Your task to perform on an android device: Is it going to rain today? Image 0: 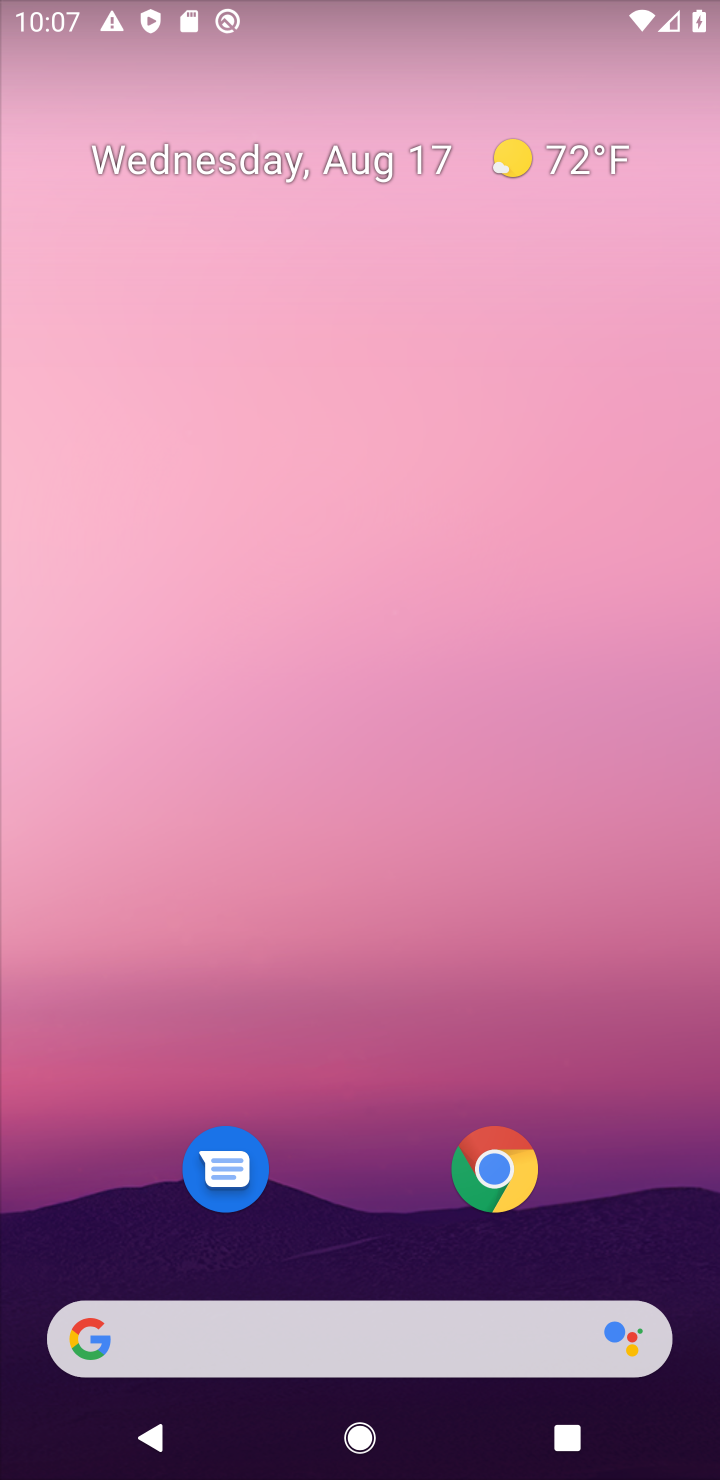
Step 0: drag from (339, 1038) to (349, 242)
Your task to perform on an android device: Is it going to rain today? Image 1: 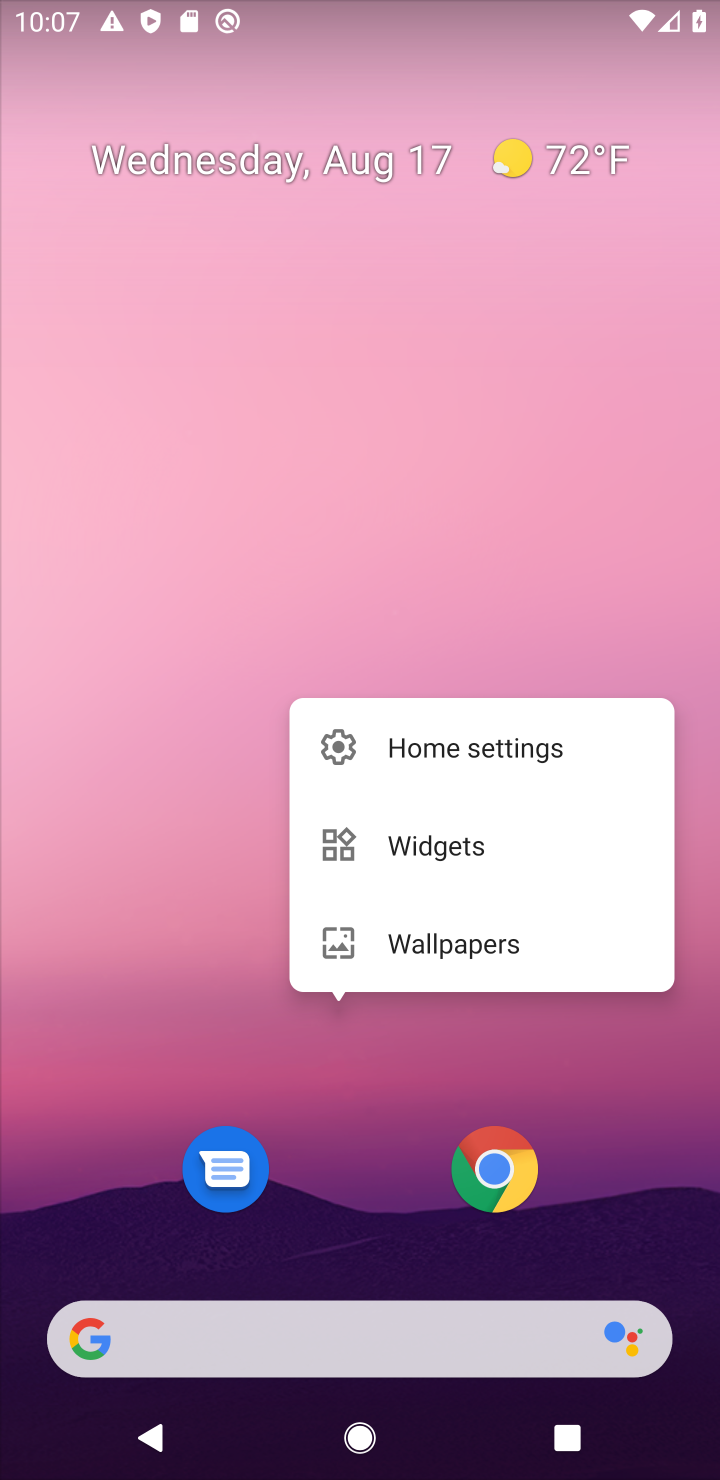
Step 1: click (387, 1029)
Your task to perform on an android device: Is it going to rain today? Image 2: 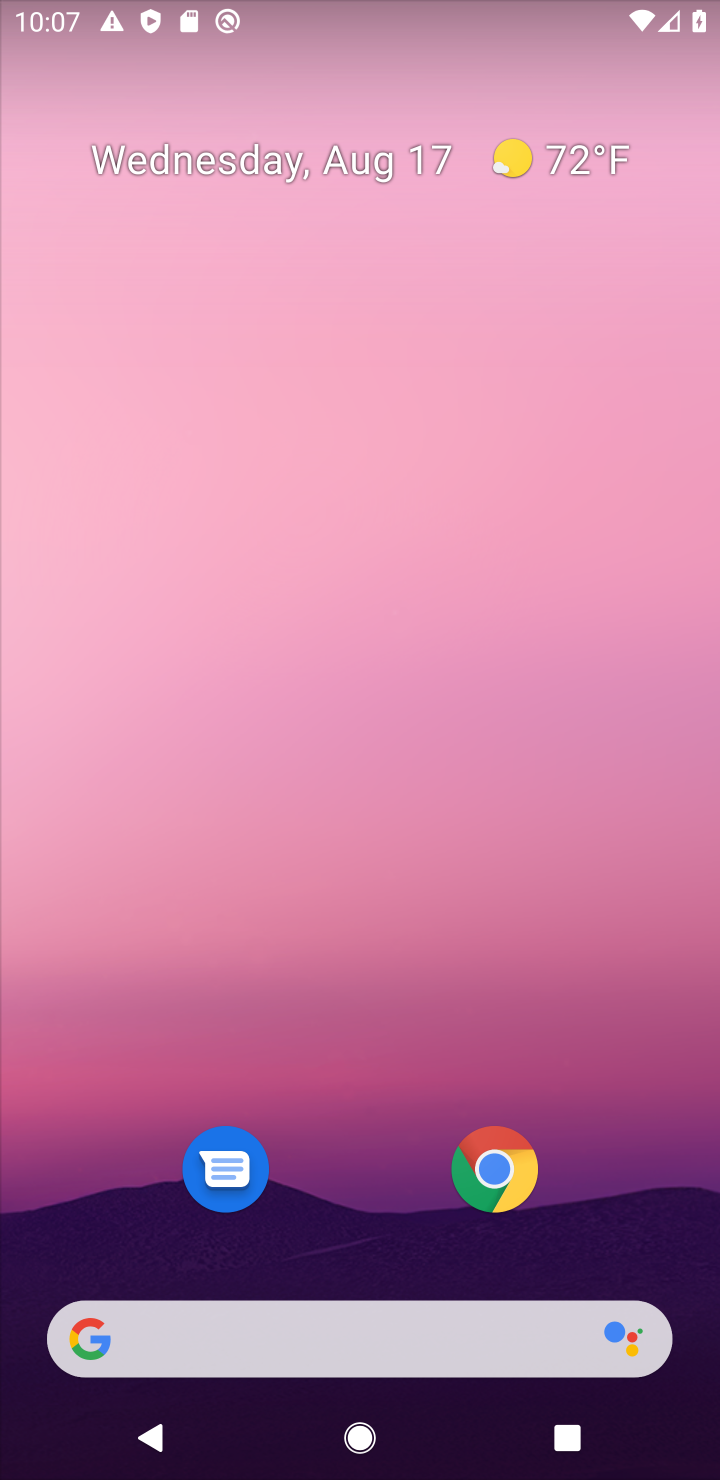
Step 2: drag from (387, 1029) to (225, 280)
Your task to perform on an android device: Is it going to rain today? Image 3: 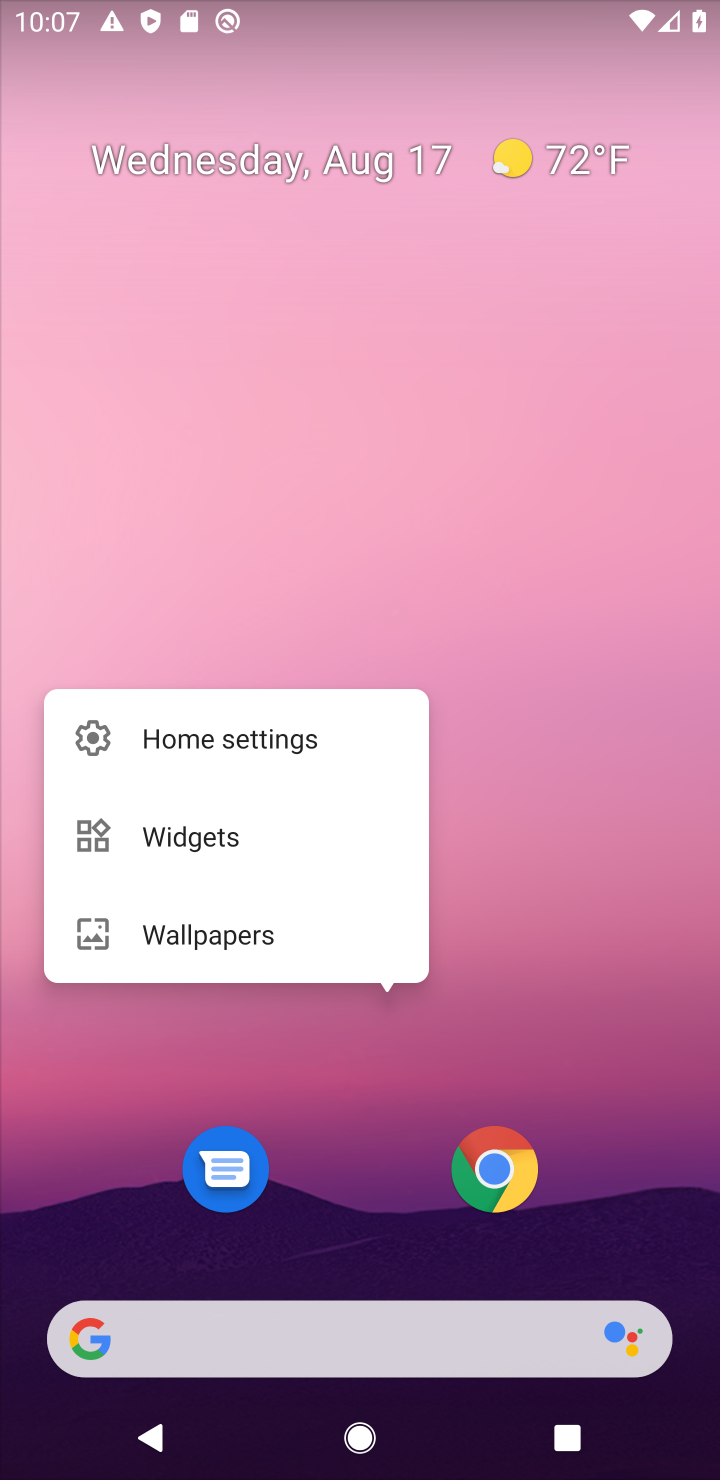
Step 3: drag from (588, 1479) to (165, 1426)
Your task to perform on an android device: Is it going to rain today? Image 4: 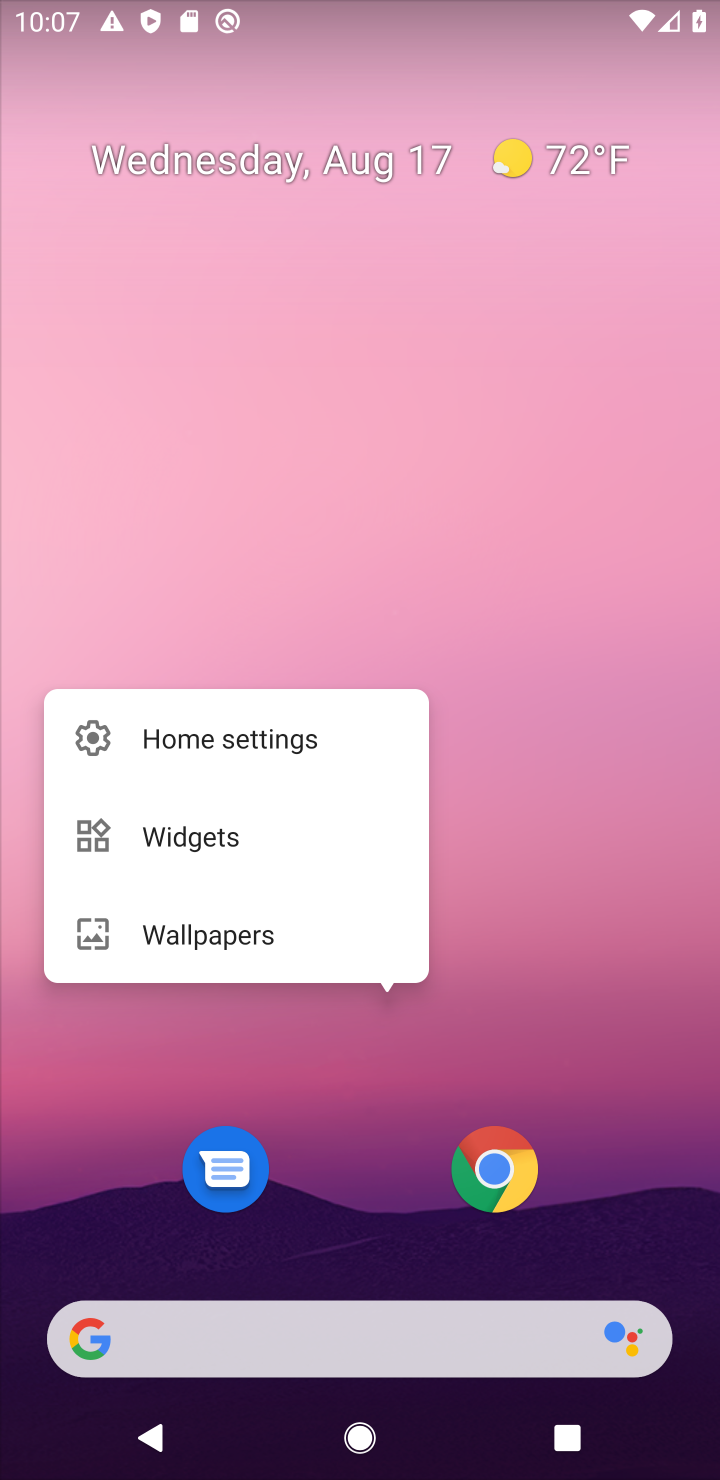
Step 4: click (383, 1351)
Your task to perform on an android device: Is it going to rain today? Image 5: 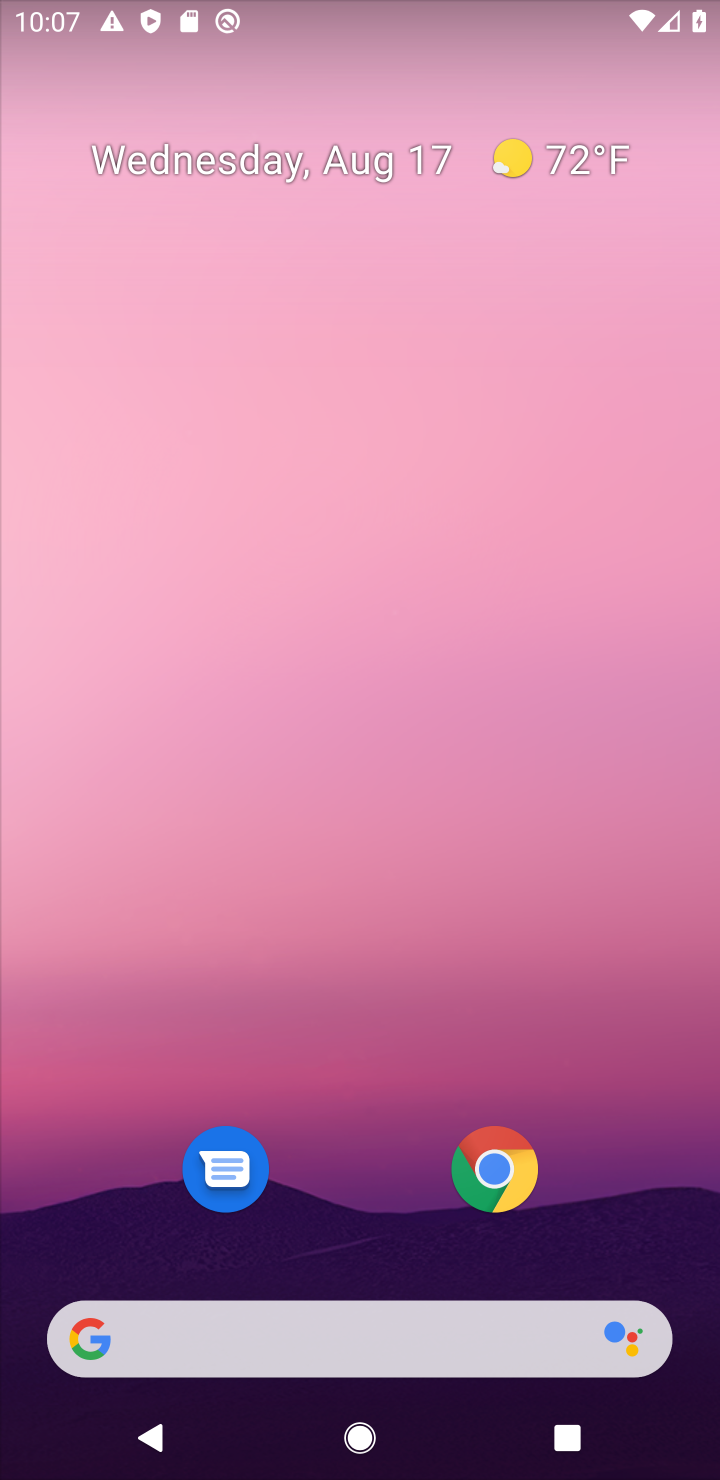
Step 5: click (383, 1351)
Your task to perform on an android device: Is it going to rain today? Image 6: 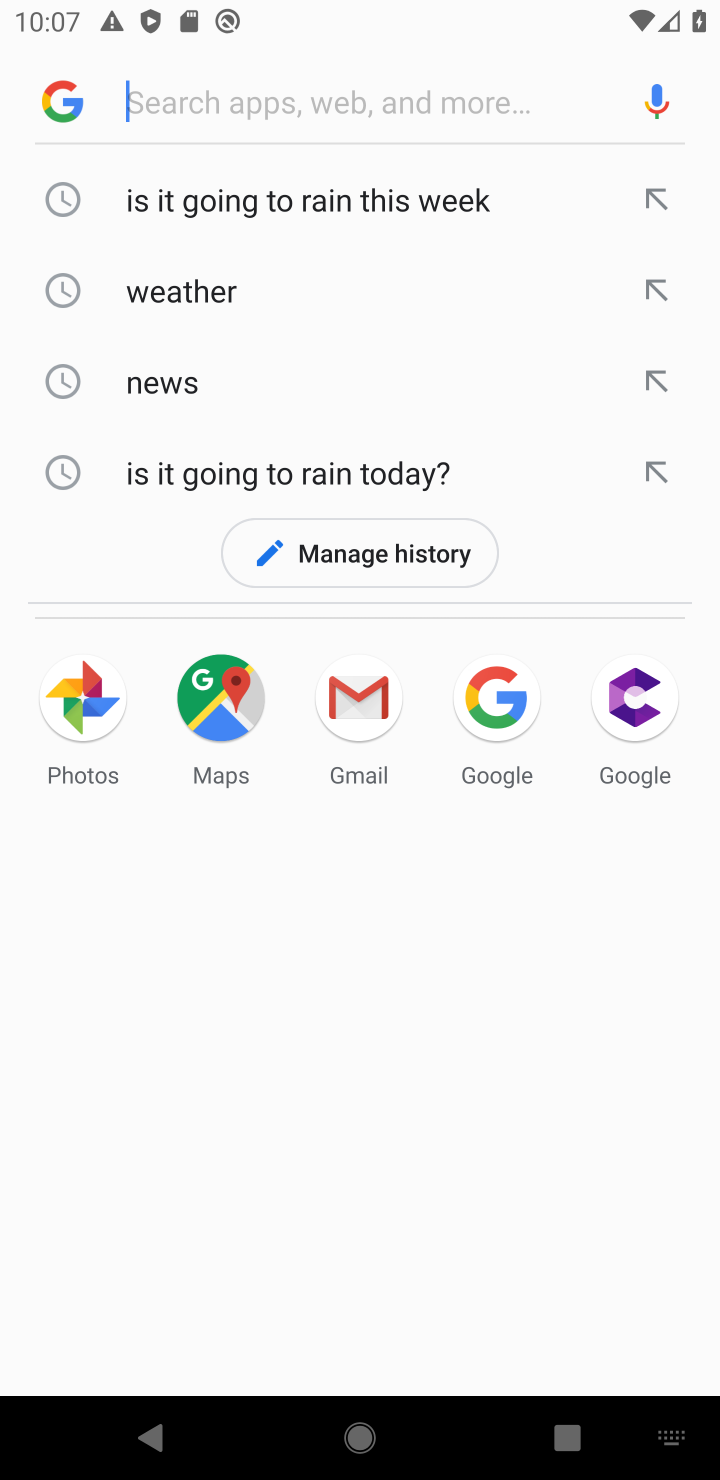
Step 6: type " Is it going to rain today?"
Your task to perform on an android device: Is it going to rain today? Image 7: 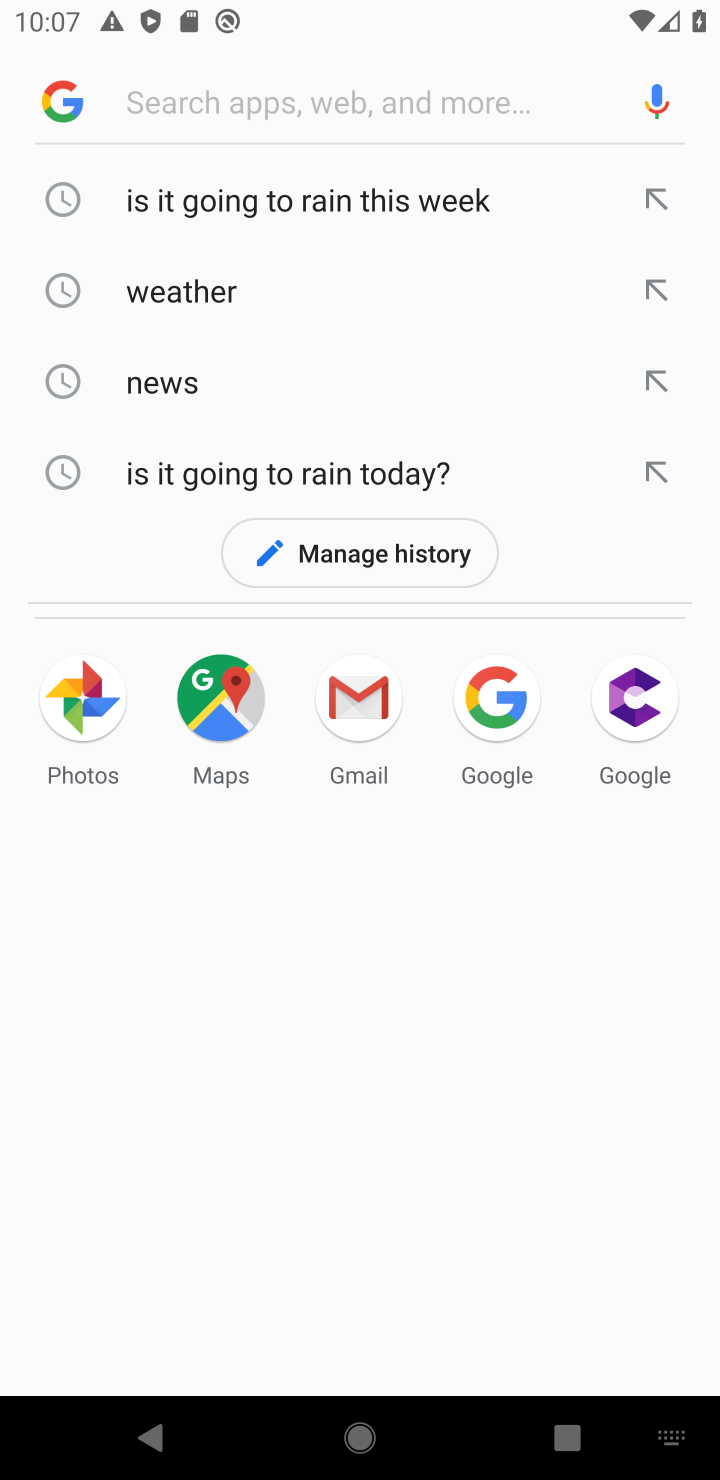
Step 7: click (231, 123)
Your task to perform on an android device: Is it going to rain today? Image 8: 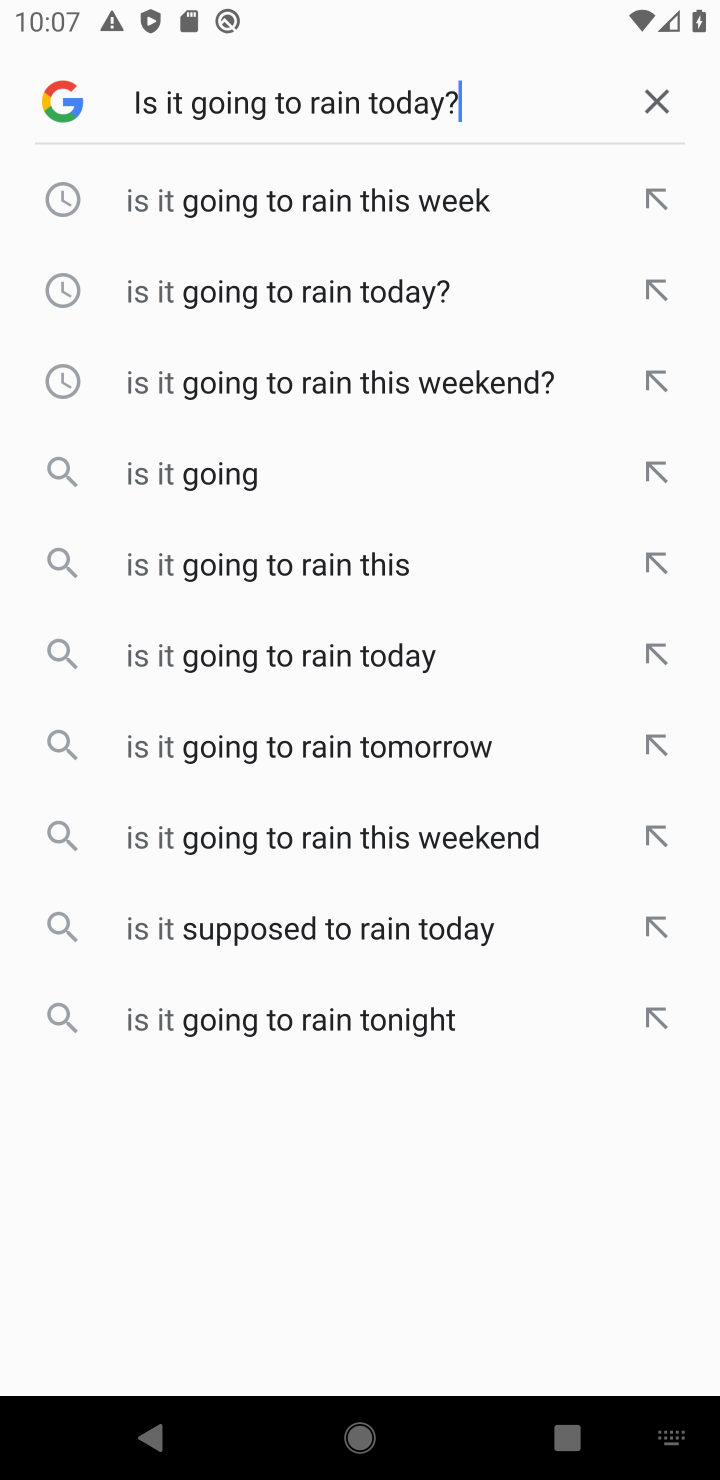
Step 8: press enter
Your task to perform on an android device: Is it going to rain today? Image 9: 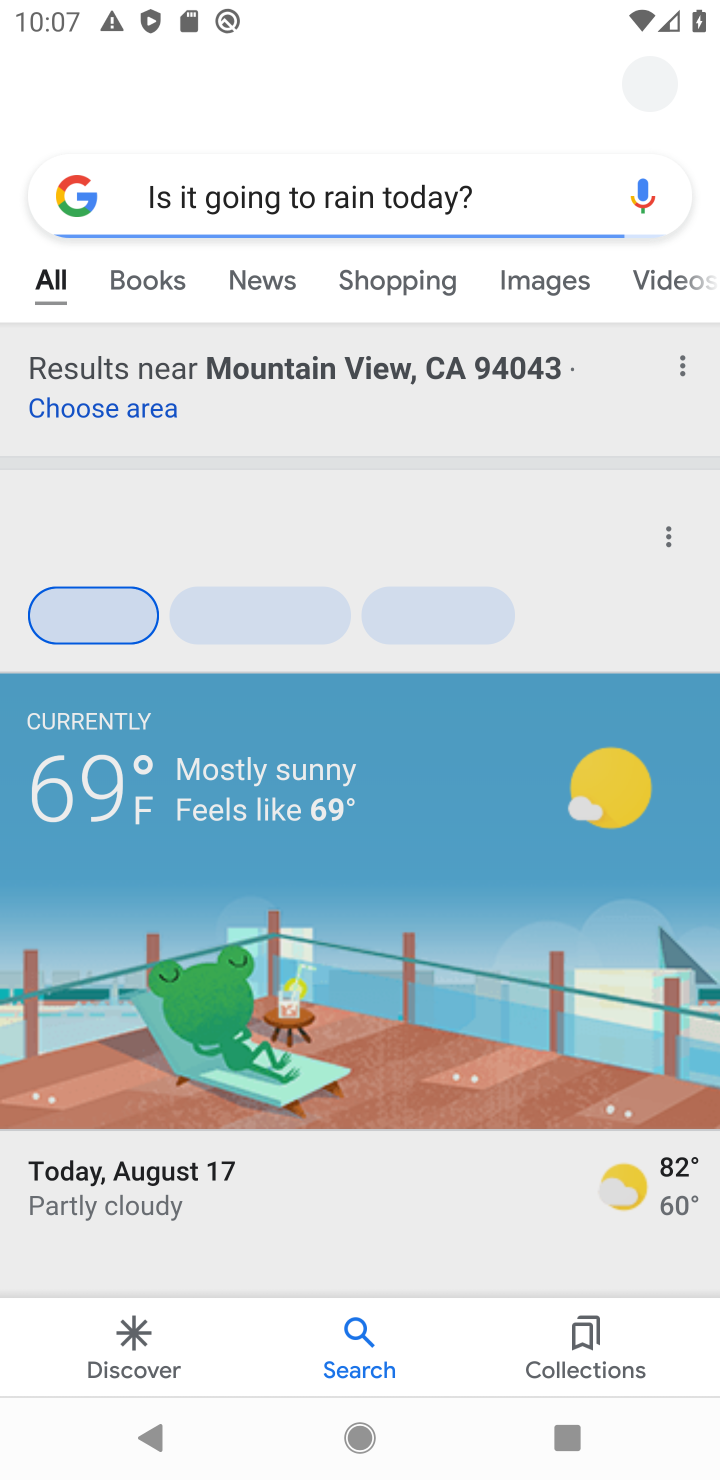
Step 9: type " Is it going to rain today?"
Your task to perform on an android device: Is it going to rain today? Image 10: 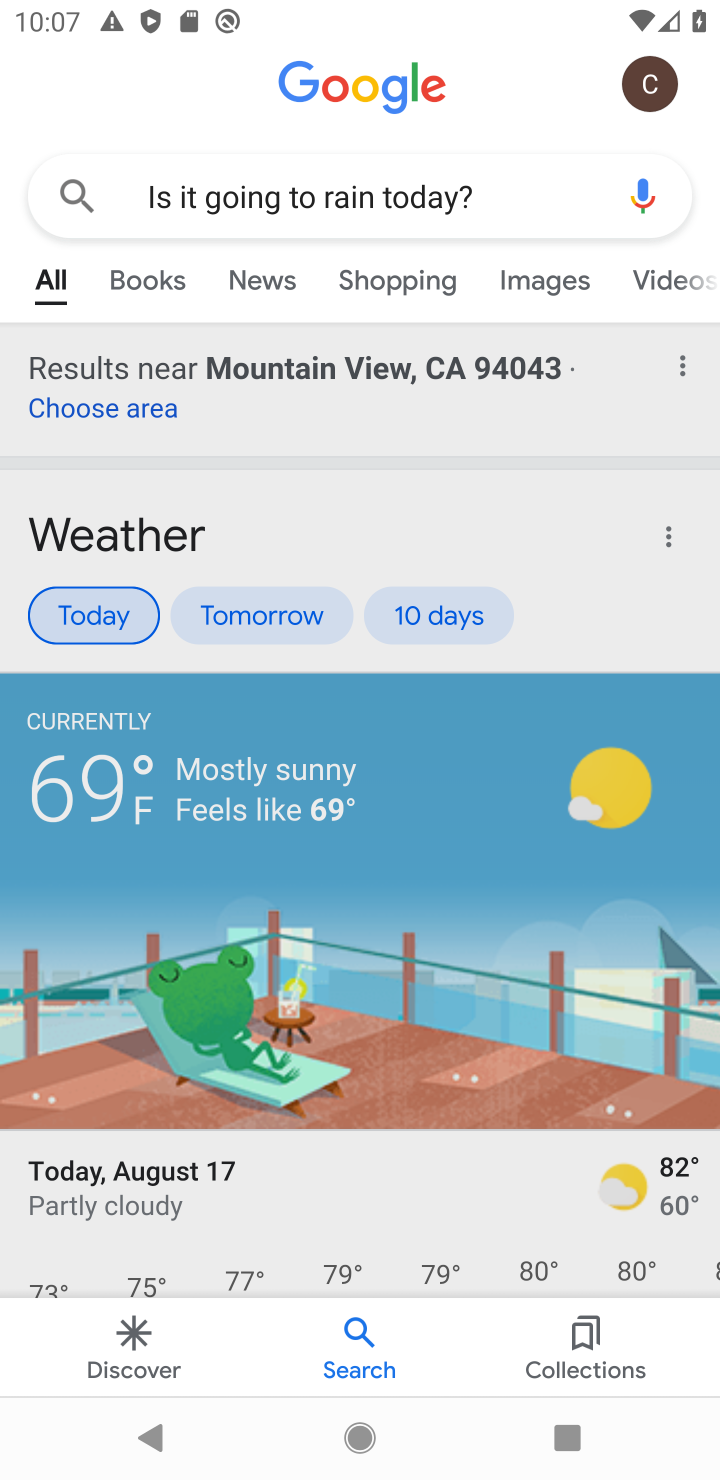
Step 10: type ""
Your task to perform on an android device: Is it going to rain today? Image 11: 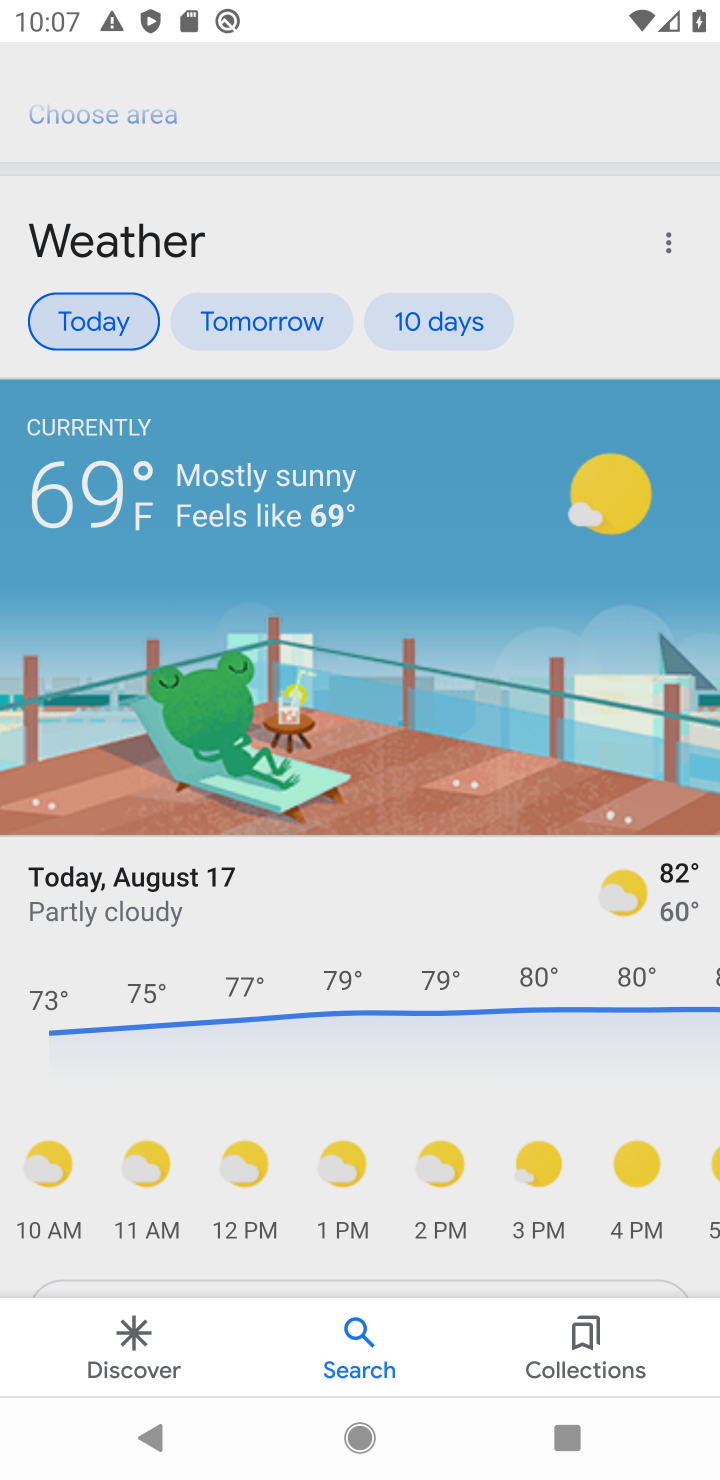
Step 11: press enter
Your task to perform on an android device: Is it going to rain today? Image 12: 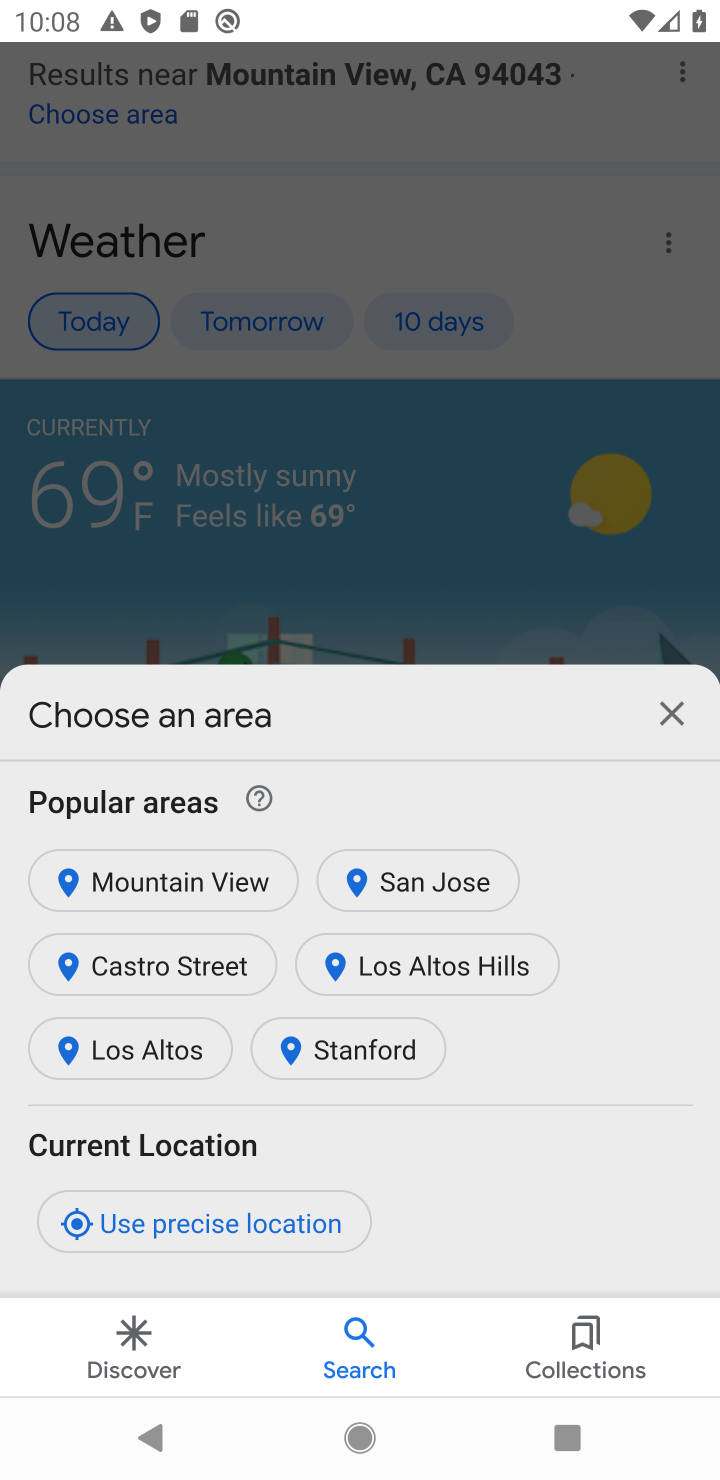
Step 12: task complete